Your task to perform on an android device: snooze an email in the gmail app Image 0: 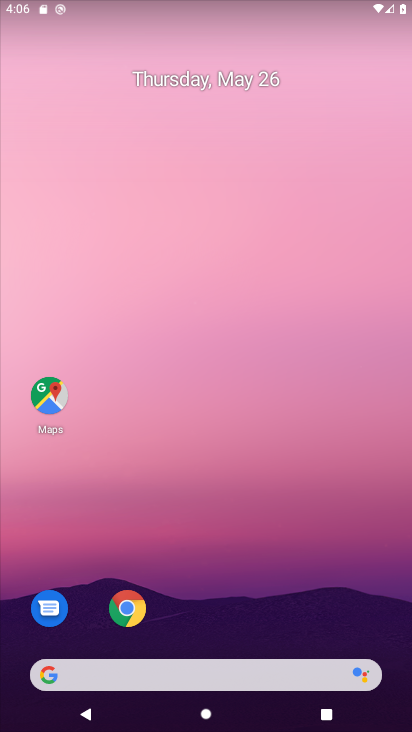
Step 0: drag from (181, 630) to (299, 129)
Your task to perform on an android device: snooze an email in the gmail app Image 1: 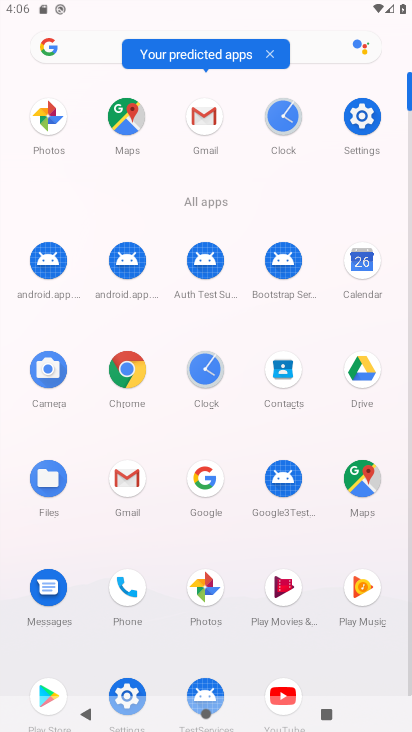
Step 1: click (122, 490)
Your task to perform on an android device: snooze an email in the gmail app Image 2: 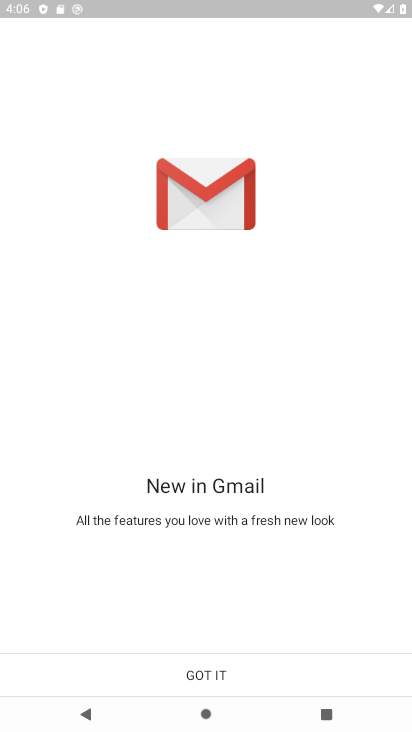
Step 2: click (215, 671)
Your task to perform on an android device: snooze an email in the gmail app Image 3: 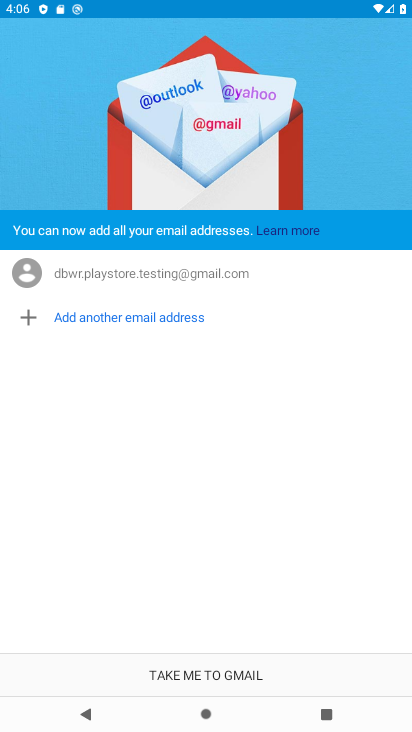
Step 3: click (215, 673)
Your task to perform on an android device: snooze an email in the gmail app Image 4: 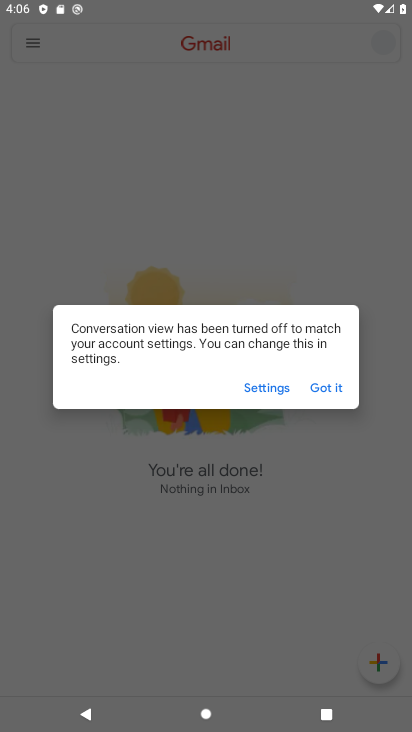
Step 4: click (333, 390)
Your task to perform on an android device: snooze an email in the gmail app Image 5: 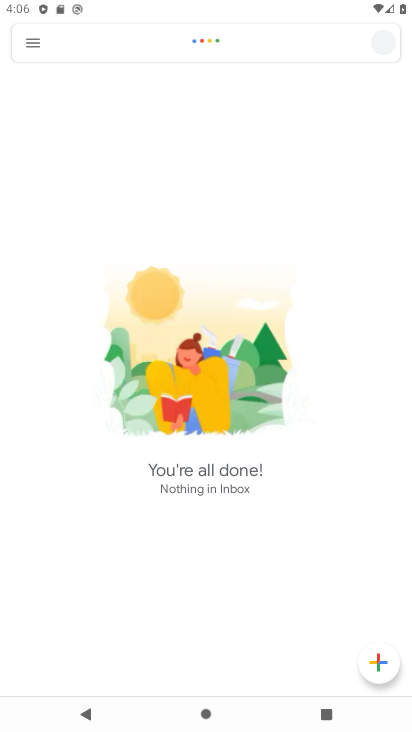
Step 5: click (44, 38)
Your task to perform on an android device: snooze an email in the gmail app Image 6: 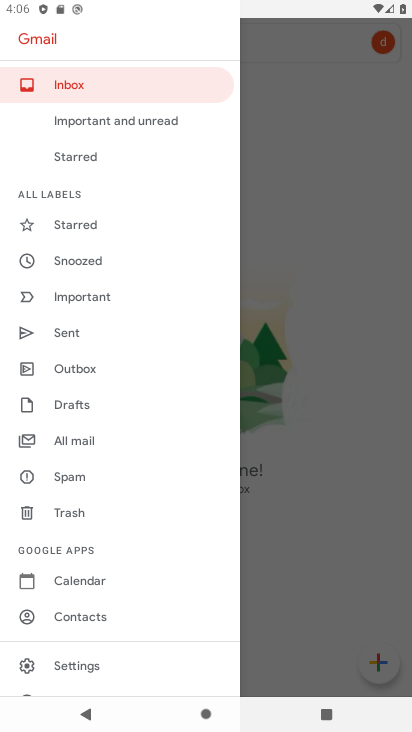
Step 6: click (122, 442)
Your task to perform on an android device: snooze an email in the gmail app Image 7: 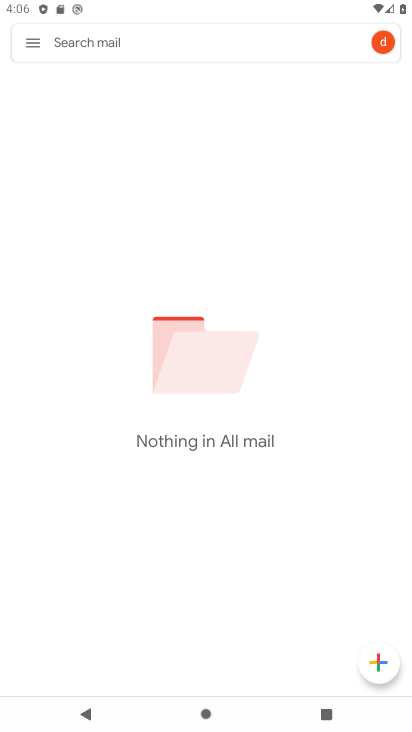
Step 7: task complete